Your task to perform on an android device: Search for Italian restaurants on Maps Image 0: 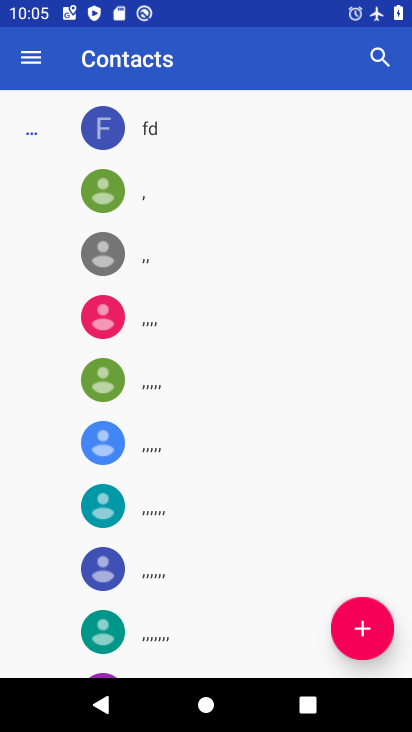
Step 0: press home button
Your task to perform on an android device: Search for Italian restaurants on Maps Image 1: 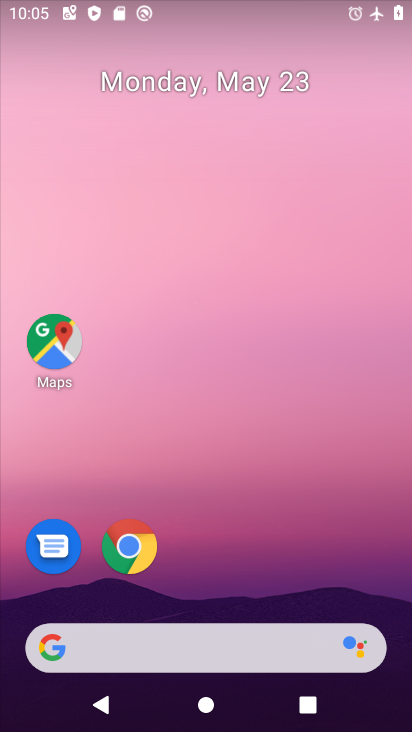
Step 1: click (54, 336)
Your task to perform on an android device: Search for Italian restaurants on Maps Image 2: 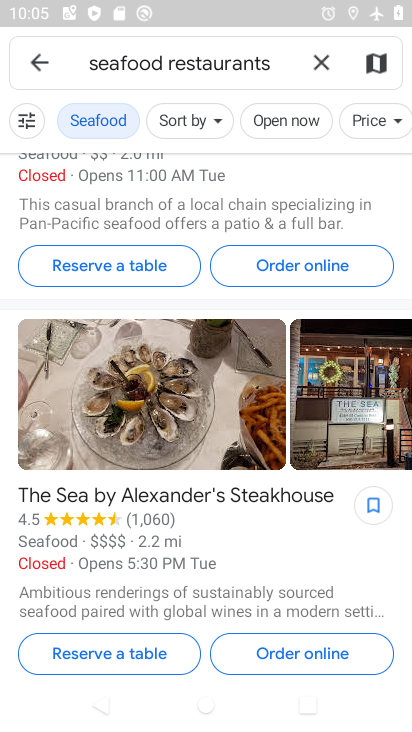
Step 2: click (322, 64)
Your task to perform on an android device: Search for Italian restaurants on Maps Image 3: 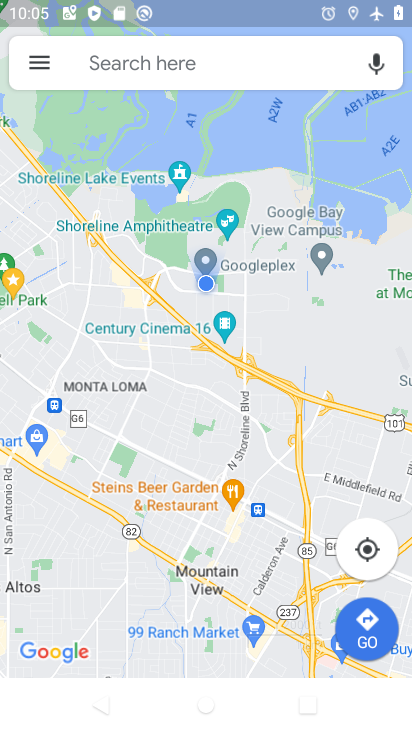
Step 3: click (128, 54)
Your task to perform on an android device: Search for Italian restaurants on Maps Image 4: 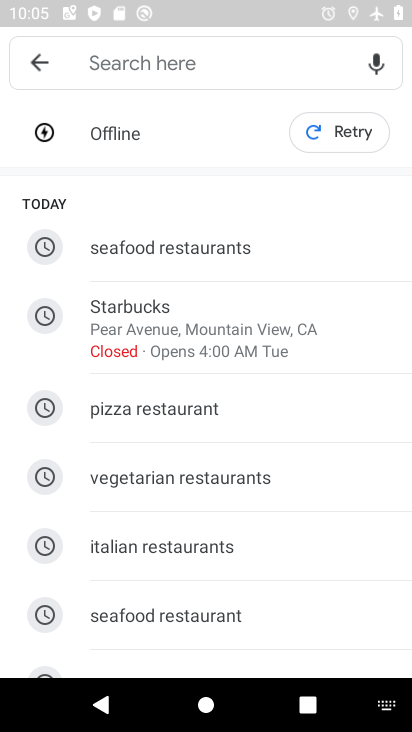
Step 4: type "italian restaurant"
Your task to perform on an android device: Search for Italian restaurants on Maps Image 5: 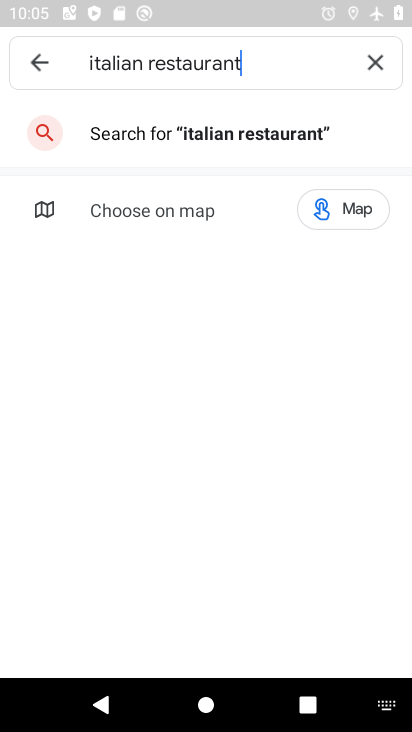
Step 5: click (222, 126)
Your task to perform on an android device: Search for Italian restaurants on Maps Image 6: 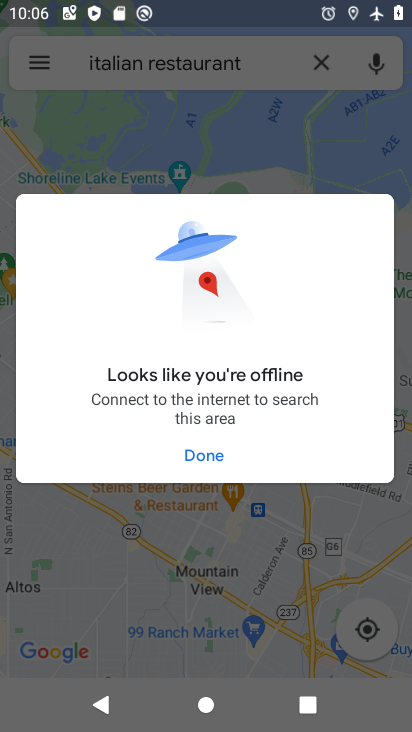
Step 6: task complete